Your task to perform on an android device: turn on the 24-hour format for clock Image 0: 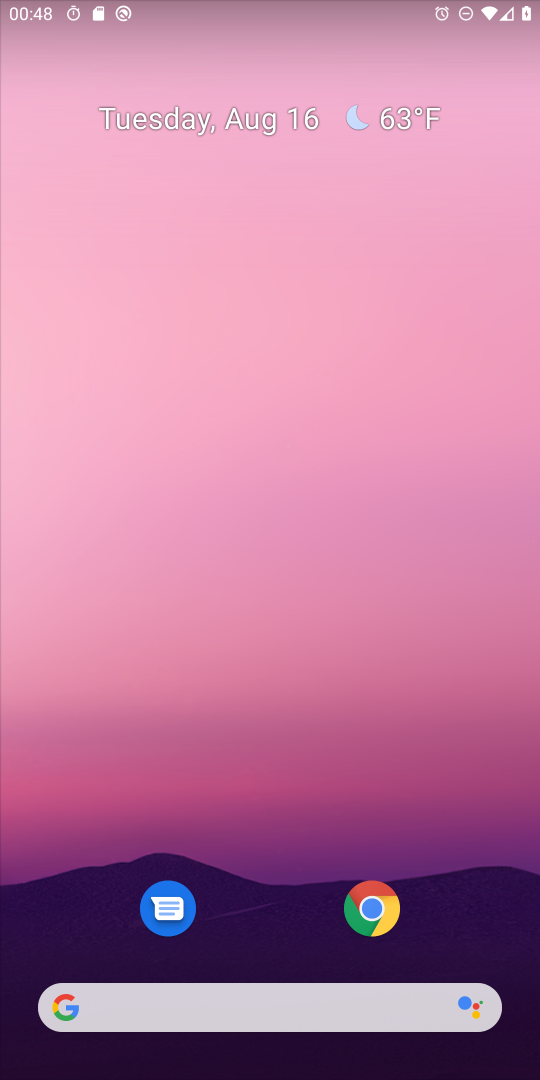
Step 0: drag from (276, 964) to (115, 143)
Your task to perform on an android device: turn on the 24-hour format for clock Image 1: 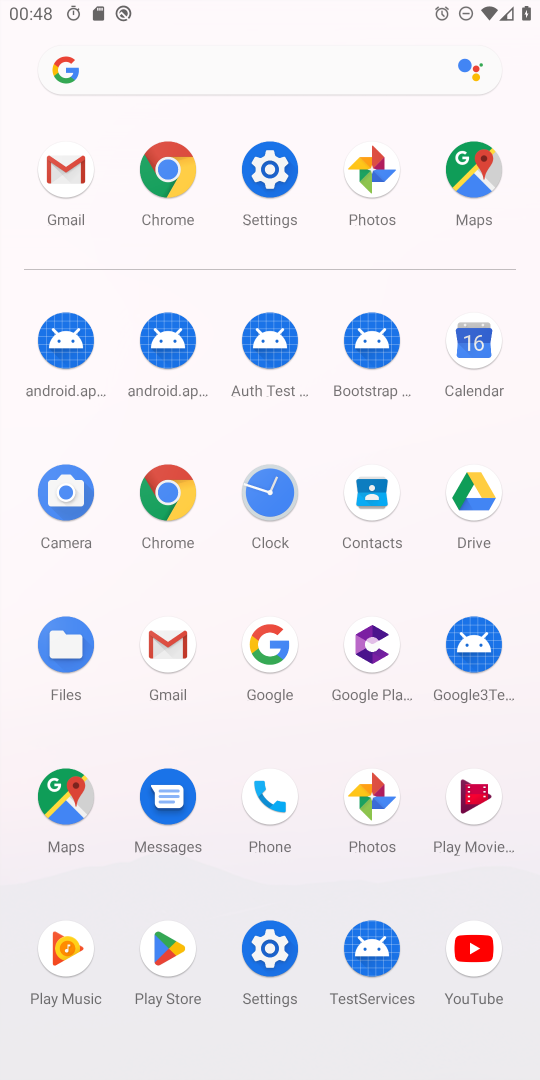
Step 1: click (269, 484)
Your task to perform on an android device: turn on the 24-hour format for clock Image 2: 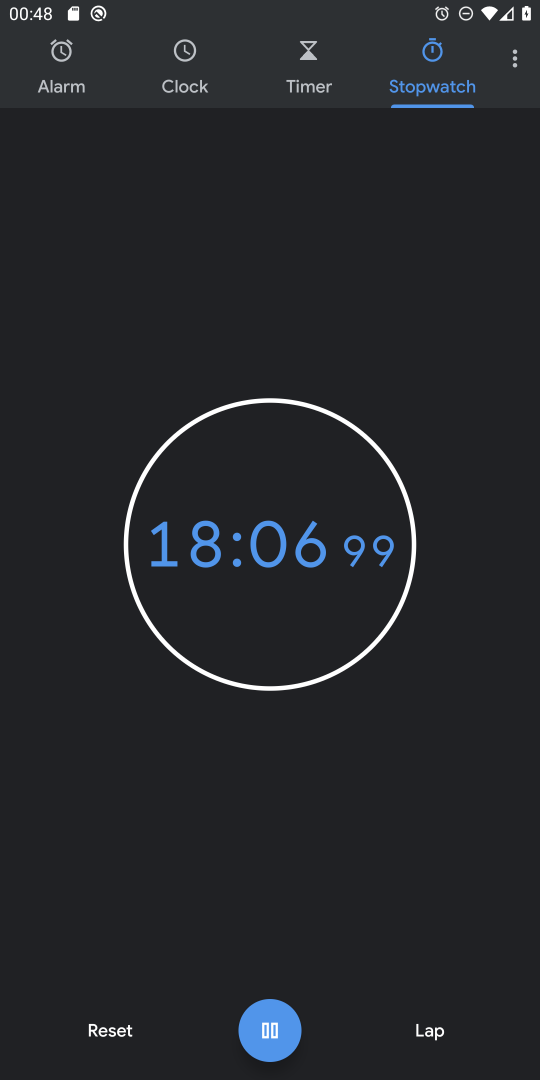
Step 2: click (524, 56)
Your task to perform on an android device: turn on the 24-hour format for clock Image 3: 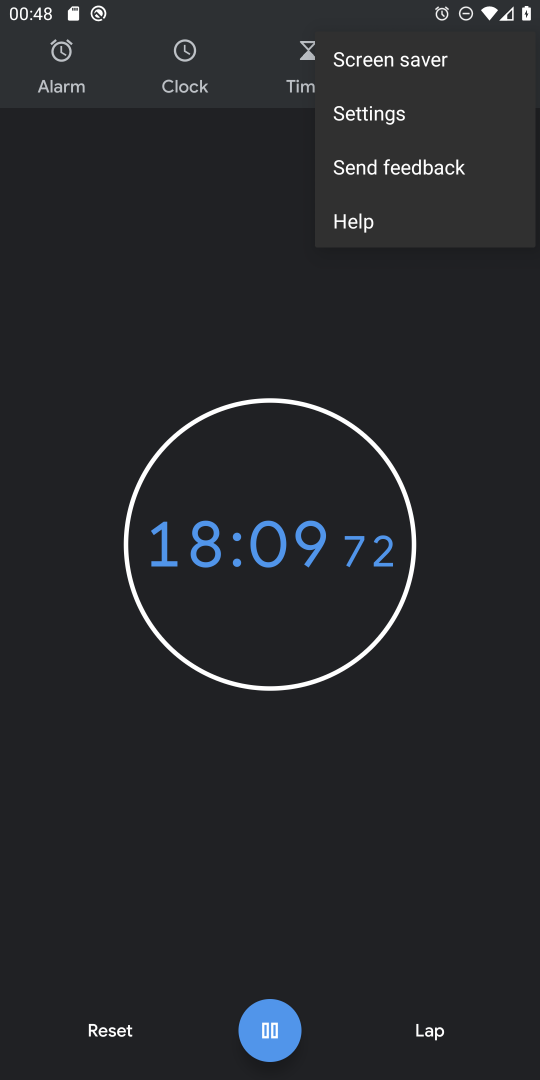
Step 3: click (389, 115)
Your task to perform on an android device: turn on the 24-hour format for clock Image 4: 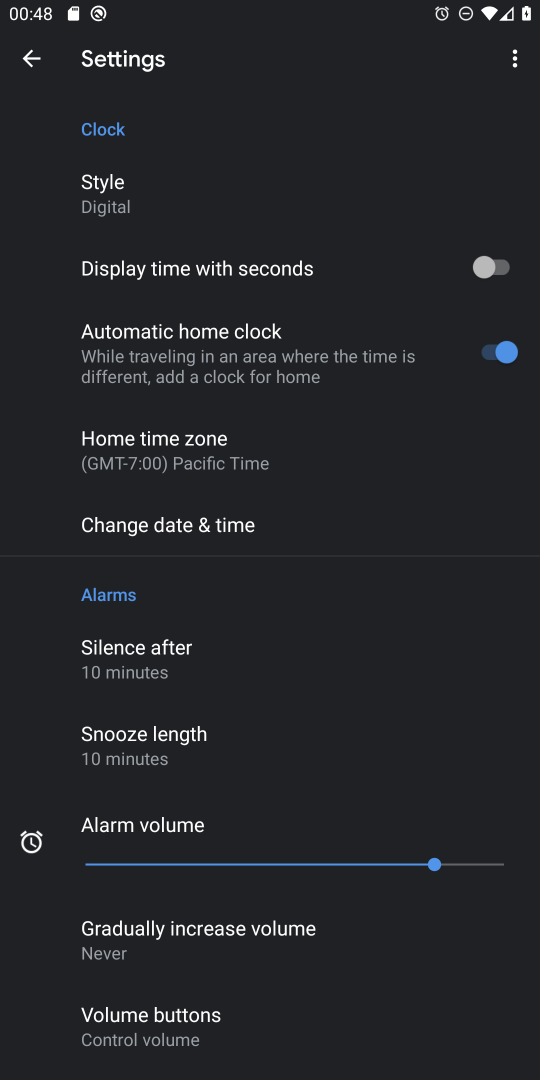
Step 4: click (158, 524)
Your task to perform on an android device: turn on the 24-hour format for clock Image 5: 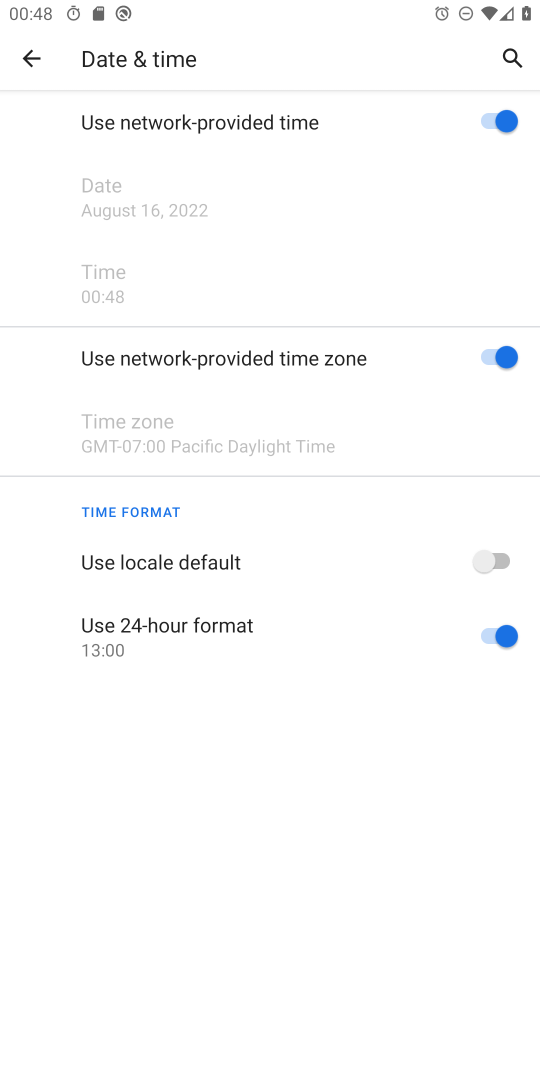
Step 5: task complete